Your task to perform on an android device: Open privacy settings Image 0: 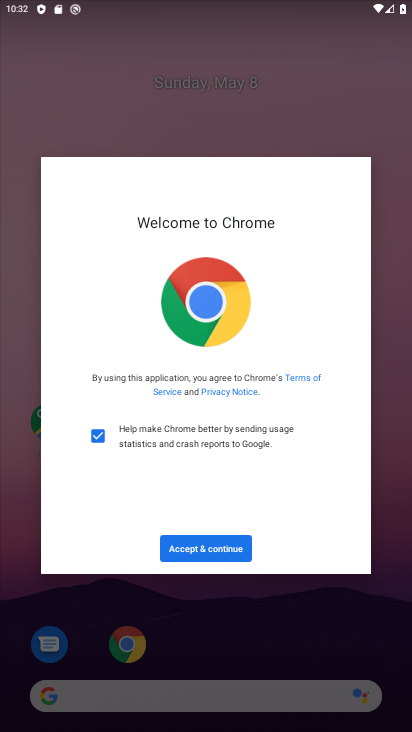
Step 0: click (195, 548)
Your task to perform on an android device: Open privacy settings Image 1: 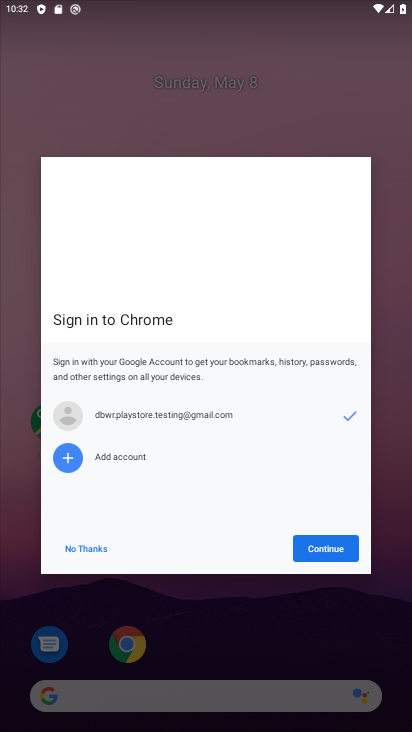
Step 1: click (314, 557)
Your task to perform on an android device: Open privacy settings Image 2: 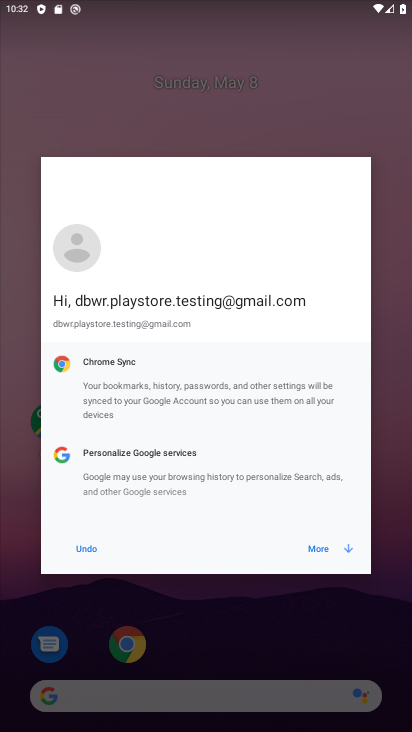
Step 2: click (316, 549)
Your task to perform on an android device: Open privacy settings Image 3: 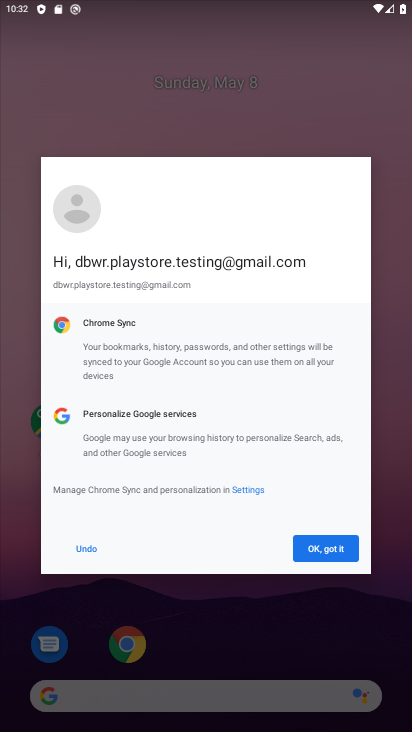
Step 3: click (316, 549)
Your task to perform on an android device: Open privacy settings Image 4: 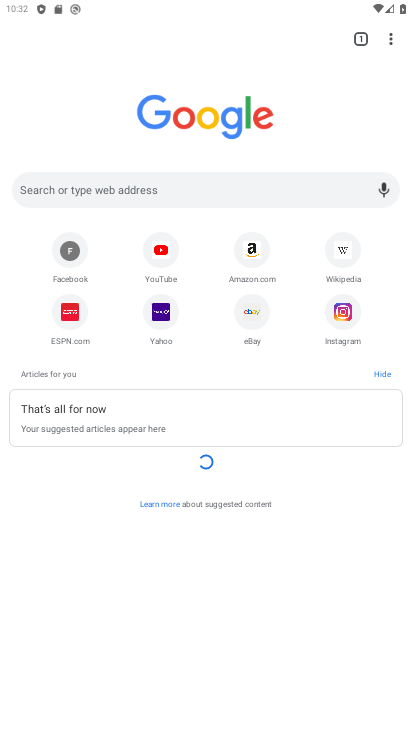
Step 4: click (385, 42)
Your task to perform on an android device: Open privacy settings Image 5: 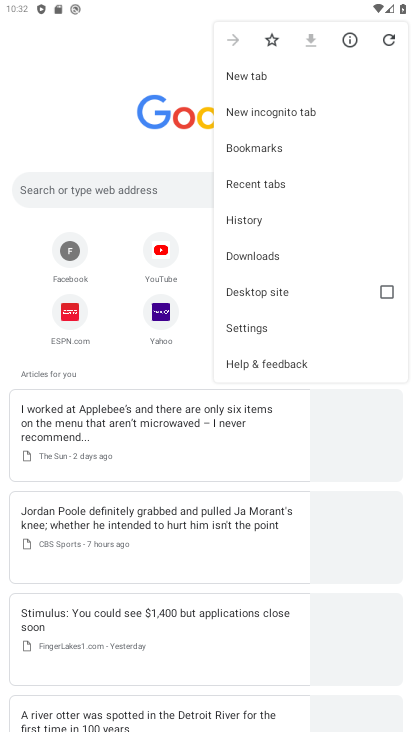
Step 5: click (271, 326)
Your task to perform on an android device: Open privacy settings Image 6: 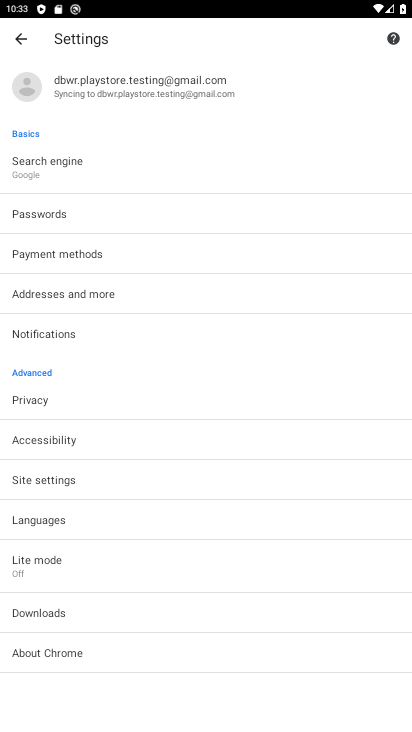
Step 6: click (68, 403)
Your task to perform on an android device: Open privacy settings Image 7: 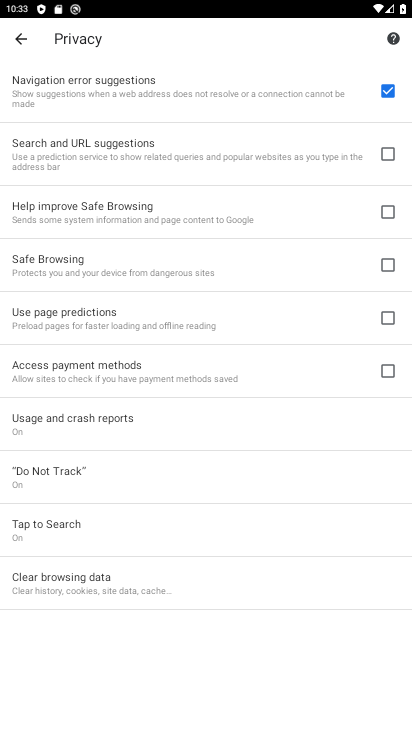
Step 7: task complete